Your task to perform on an android device: Open Google Maps Image 0: 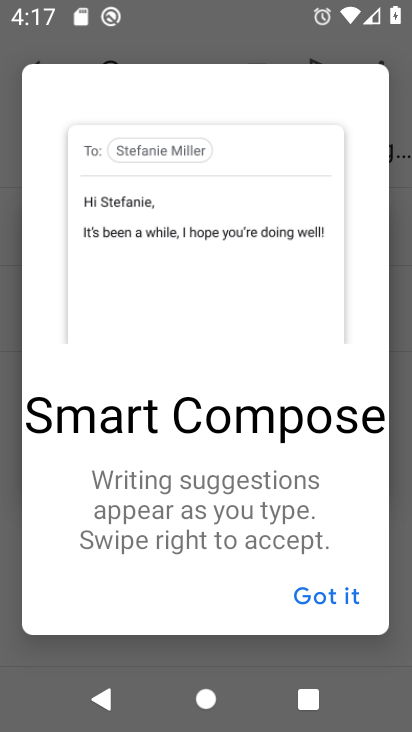
Step 0: press home button
Your task to perform on an android device: Open Google Maps Image 1: 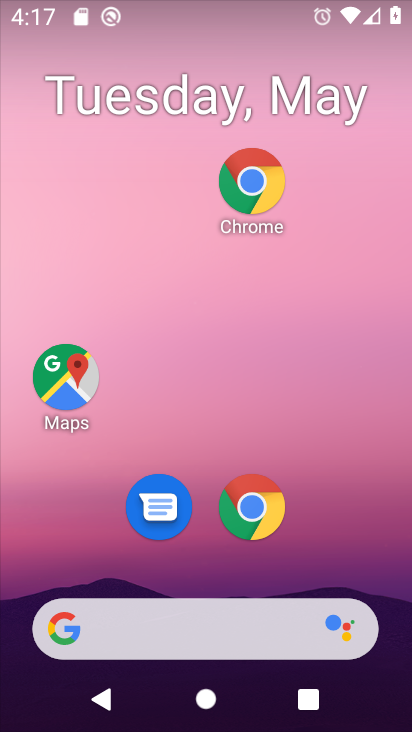
Step 1: drag from (354, 552) to (343, 50)
Your task to perform on an android device: Open Google Maps Image 2: 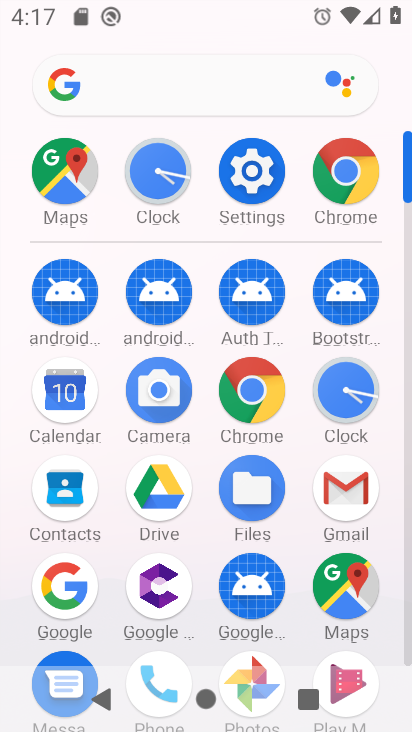
Step 2: click (360, 586)
Your task to perform on an android device: Open Google Maps Image 3: 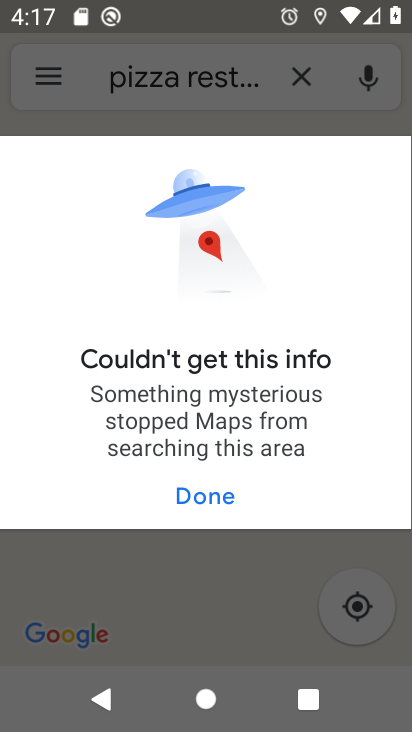
Step 3: click (191, 515)
Your task to perform on an android device: Open Google Maps Image 4: 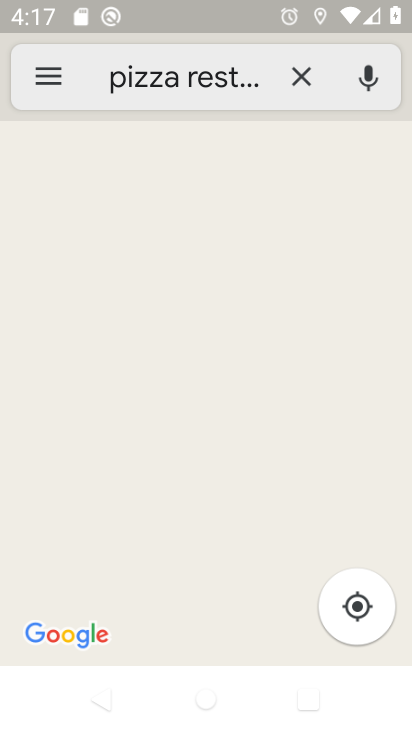
Step 4: task complete